Your task to perform on an android device: snooze an email in the gmail app Image 0: 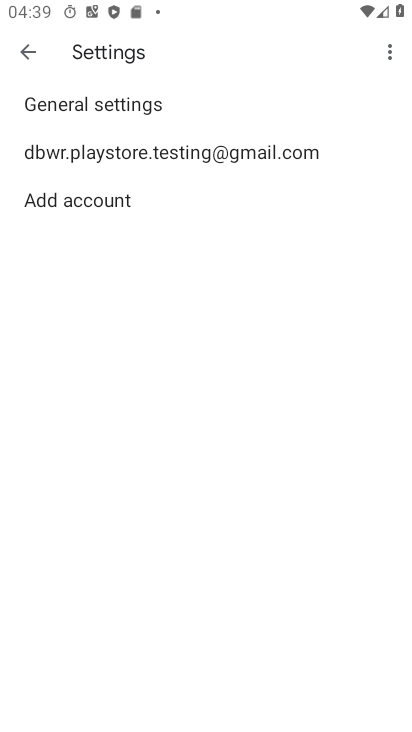
Step 0: press home button
Your task to perform on an android device: snooze an email in the gmail app Image 1: 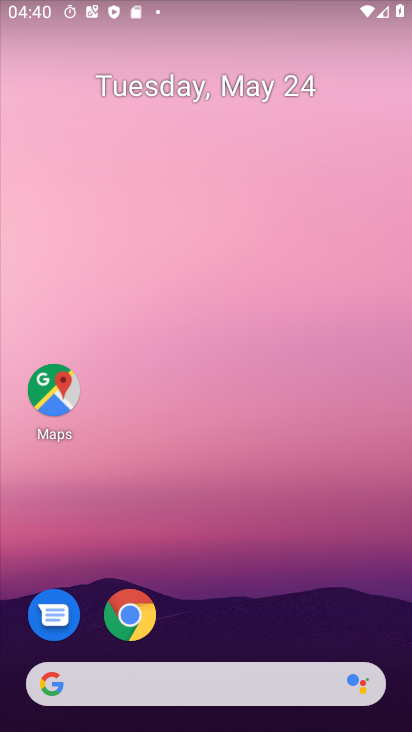
Step 1: drag from (253, 612) to (337, 28)
Your task to perform on an android device: snooze an email in the gmail app Image 2: 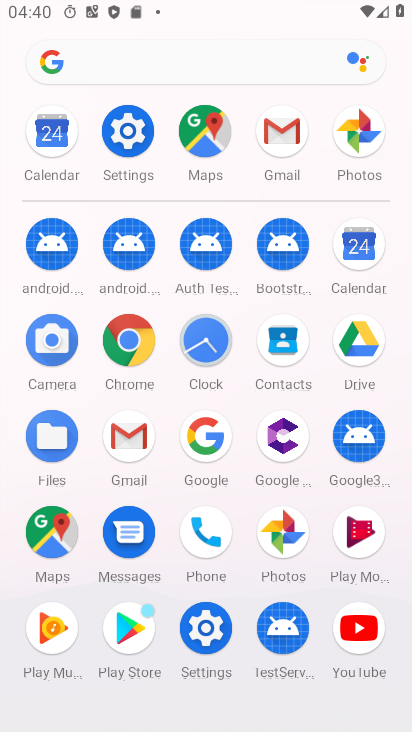
Step 2: click (278, 147)
Your task to perform on an android device: snooze an email in the gmail app Image 3: 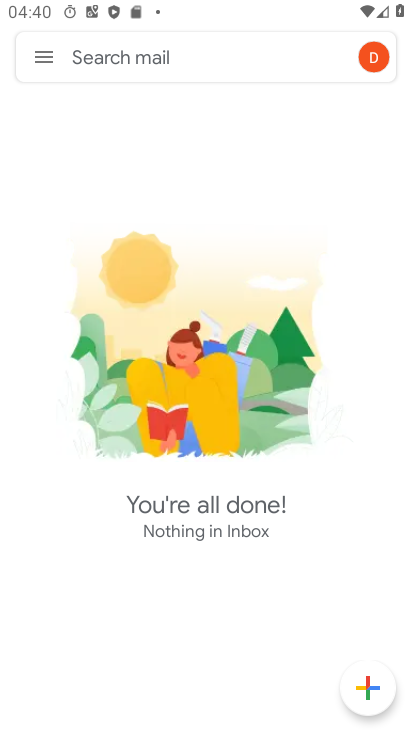
Step 3: click (49, 52)
Your task to perform on an android device: snooze an email in the gmail app Image 4: 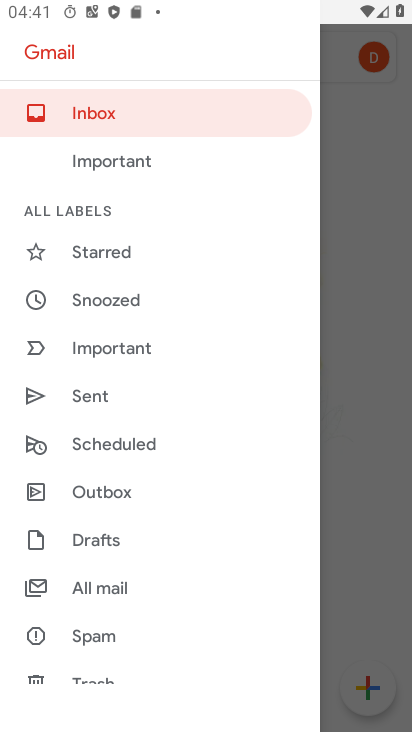
Step 4: click (110, 588)
Your task to perform on an android device: snooze an email in the gmail app Image 5: 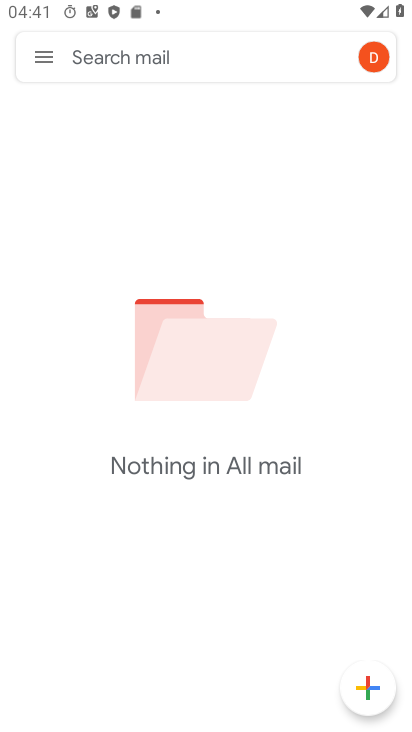
Step 5: task complete